Your task to perform on an android device: Add "rayovac triple a" to the cart on target, then select checkout. Image 0: 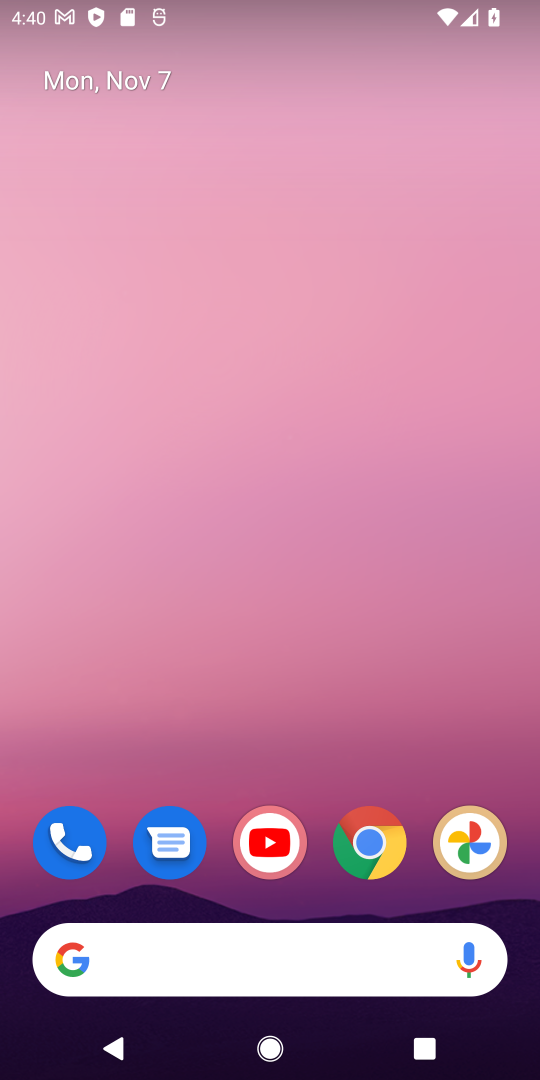
Step 0: click (370, 851)
Your task to perform on an android device: Add "rayovac triple a" to the cart on target, then select checkout. Image 1: 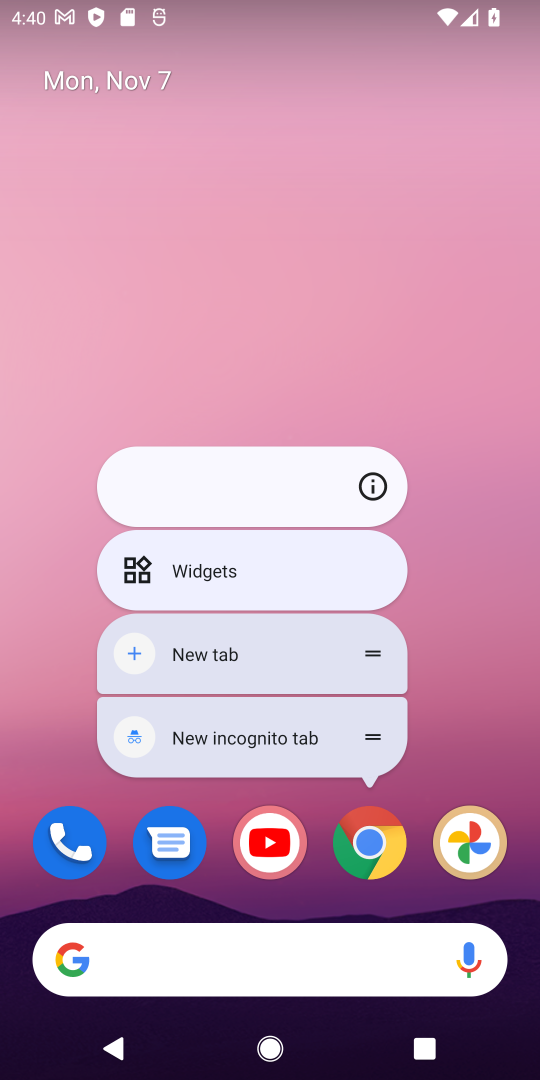
Step 1: click (370, 851)
Your task to perform on an android device: Add "rayovac triple a" to the cart on target, then select checkout. Image 2: 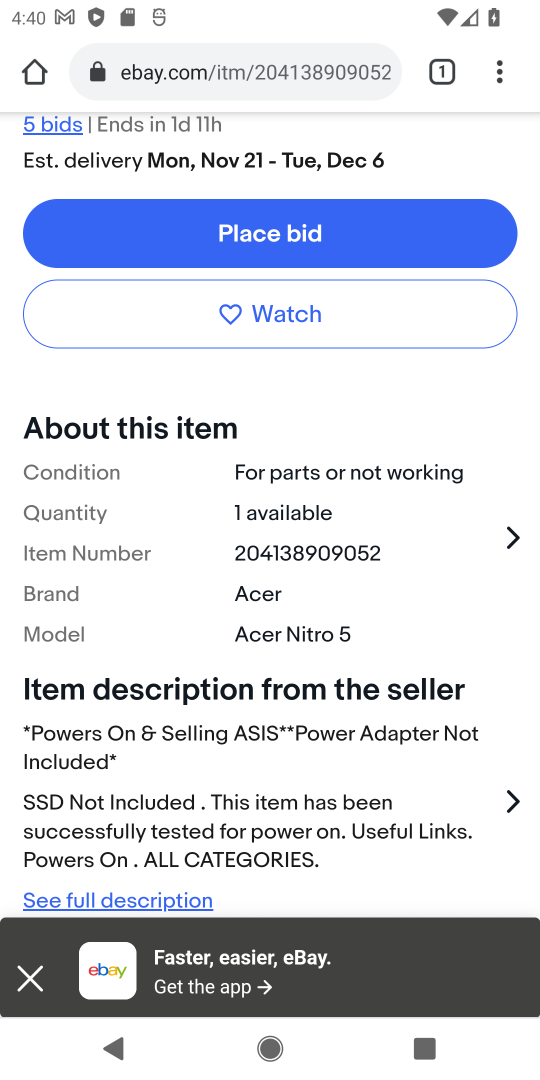
Step 2: click (292, 73)
Your task to perform on an android device: Add "rayovac triple a" to the cart on target, then select checkout. Image 3: 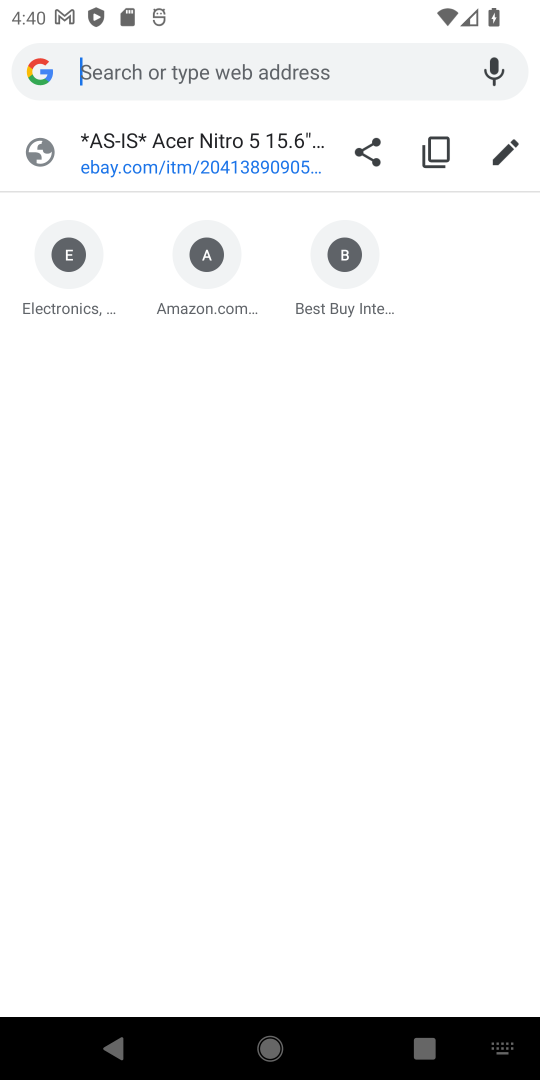
Step 3: type " target"
Your task to perform on an android device: Add "rayovac triple a" to the cart on target, then select checkout. Image 4: 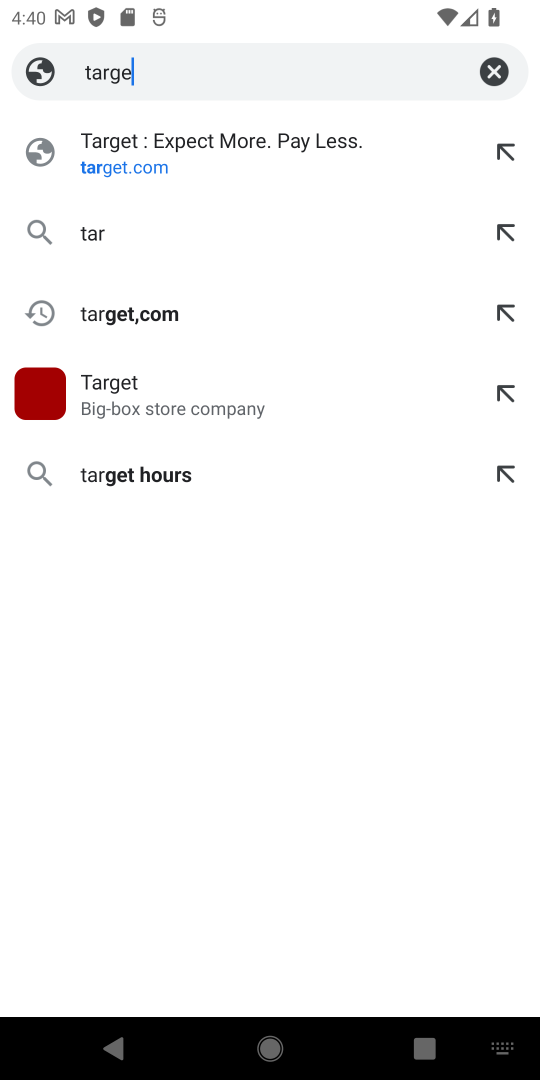
Step 4: press enter
Your task to perform on an android device: Add "rayovac triple a" to the cart on target, then select checkout. Image 5: 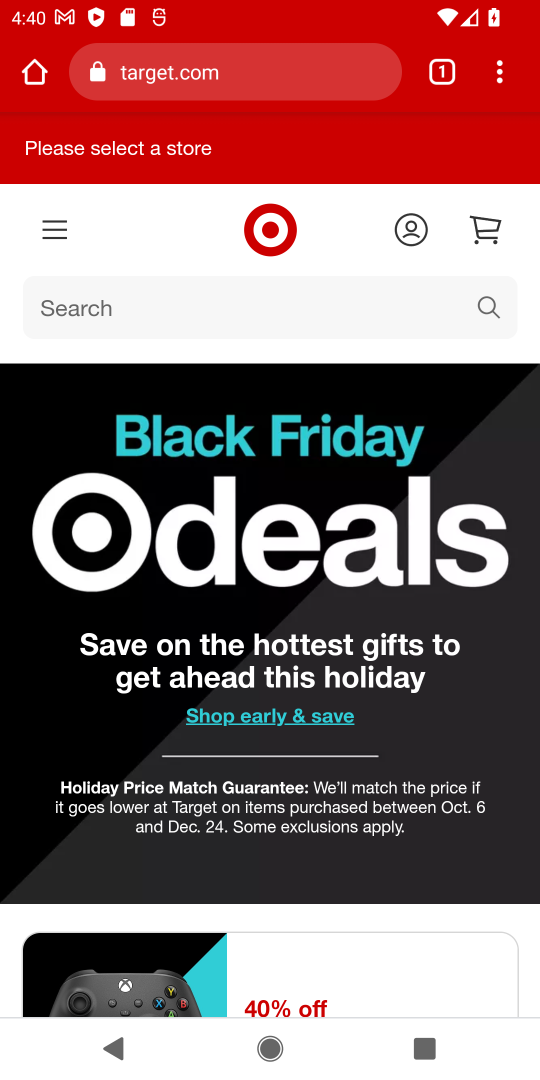
Step 5: click (278, 299)
Your task to perform on an android device: Add "rayovac triple a" to the cart on target, then select checkout. Image 6: 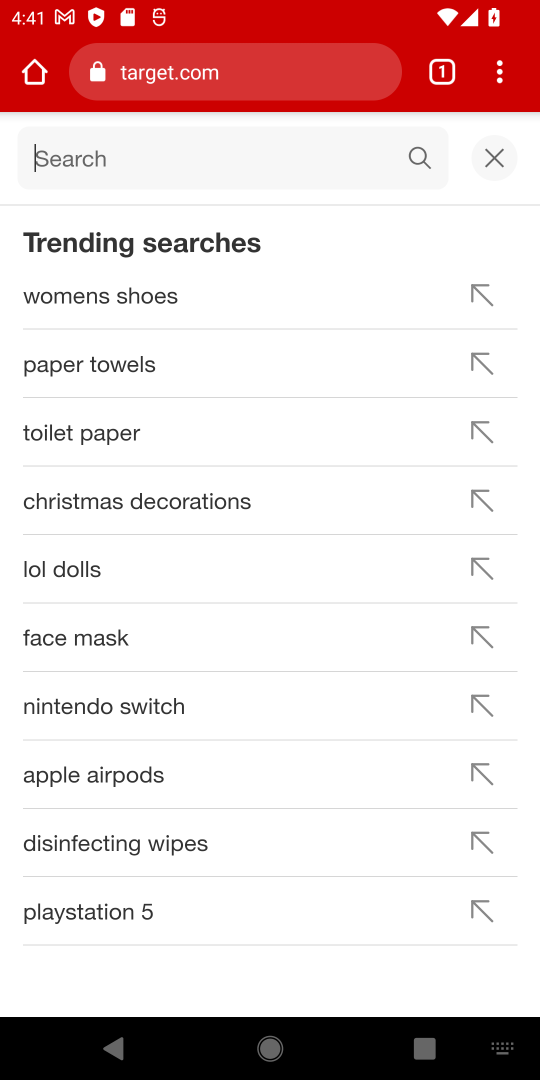
Step 6: type "rayovac triple a"
Your task to perform on an android device: Add "rayovac triple a" to the cart on target, then select checkout. Image 7: 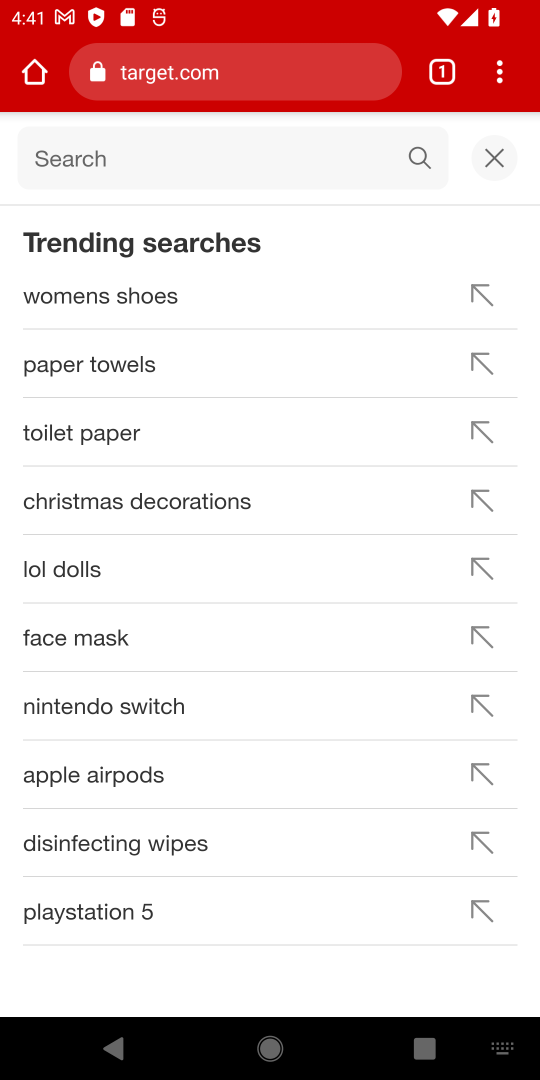
Step 7: press enter
Your task to perform on an android device: Add "rayovac triple a" to the cart on target, then select checkout. Image 8: 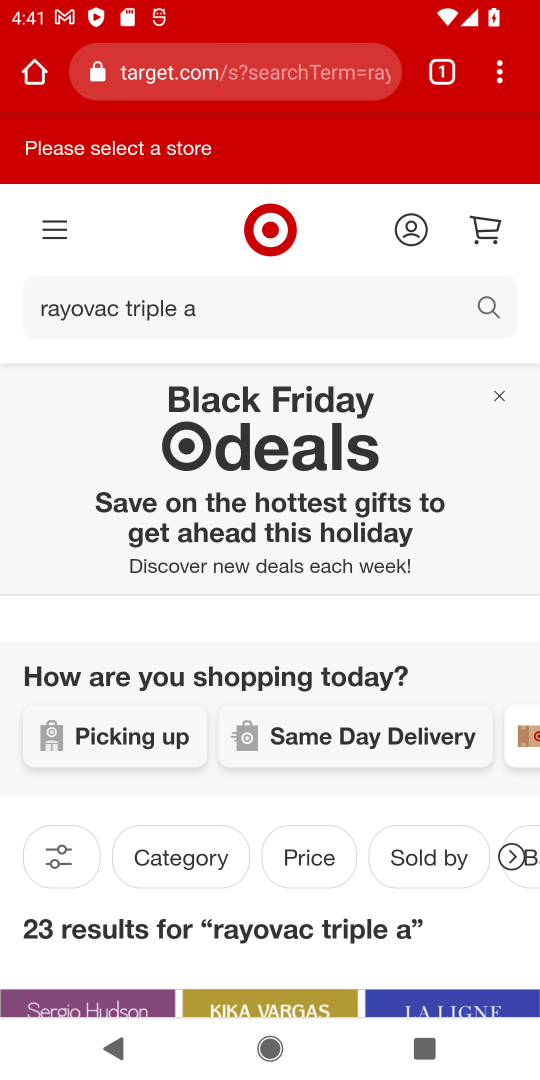
Step 8: drag from (284, 779) to (419, 237)
Your task to perform on an android device: Add "rayovac triple a" to the cart on target, then select checkout. Image 9: 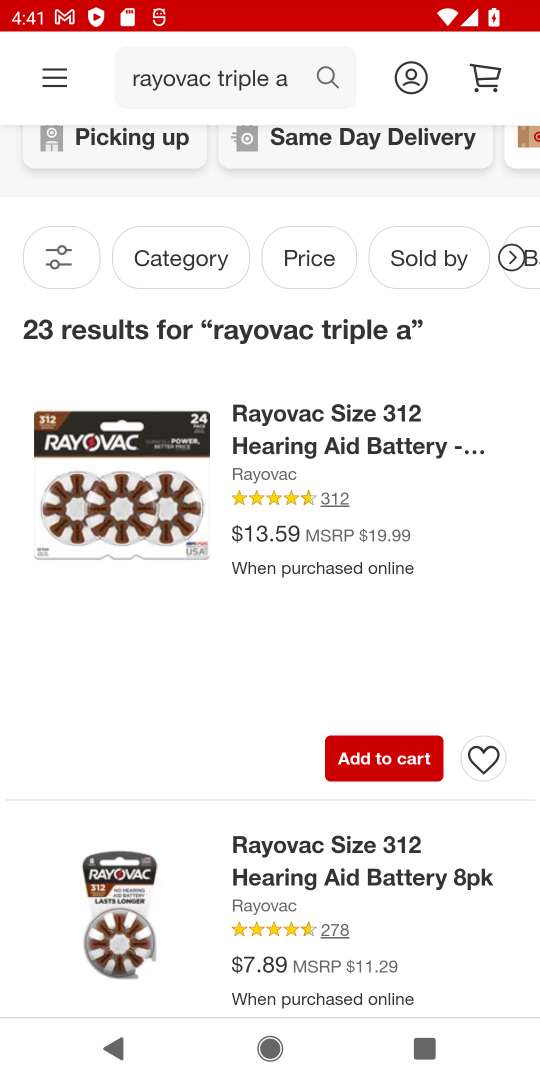
Step 9: click (366, 752)
Your task to perform on an android device: Add "rayovac triple a" to the cart on target, then select checkout. Image 10: 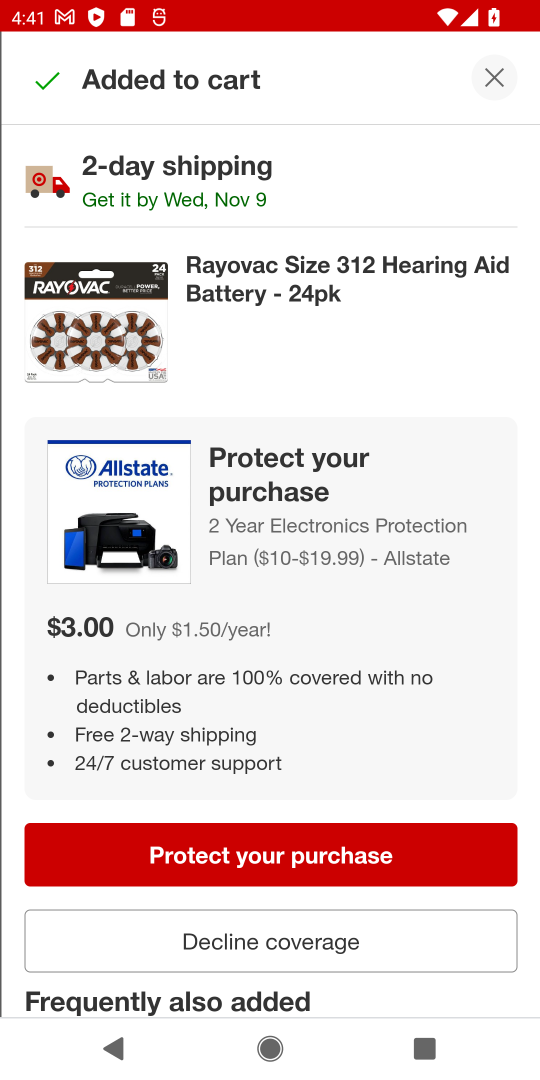
Step 10: click (329, 946)
Your task to perform on an android device: Add "rayovac triple a" to the cart on target, then select checkout. Image 11: 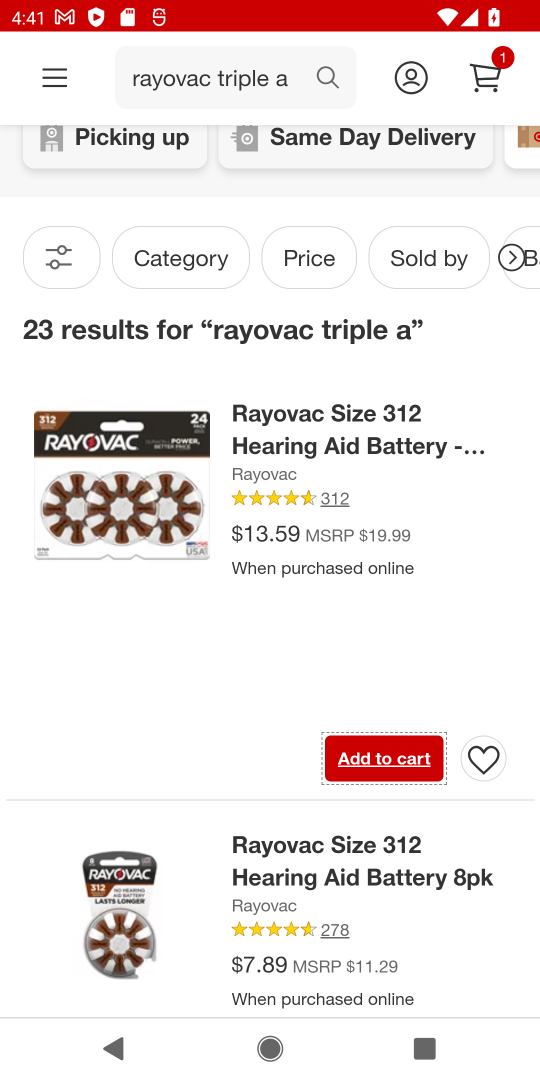
Step 11: click (485, 65)
Your task to perform on an android device: Add "rayovac triple a" to the cart on target, then select checkout. Image 12: 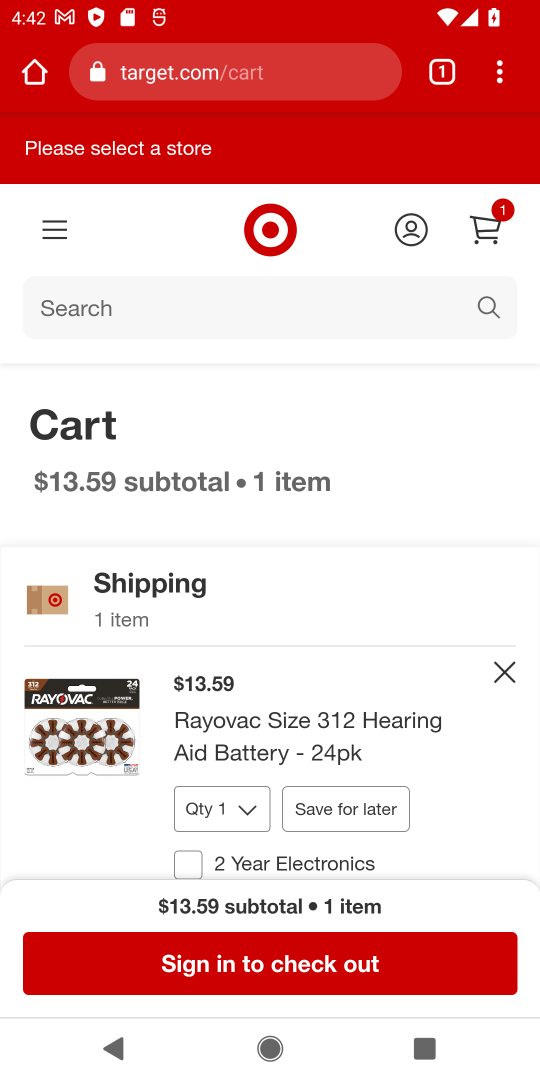
Step 12: click (311, 965)
Your task to perform on an android device: Add "rayovac triple a" to the cart on target, then select checkout. Image 13: 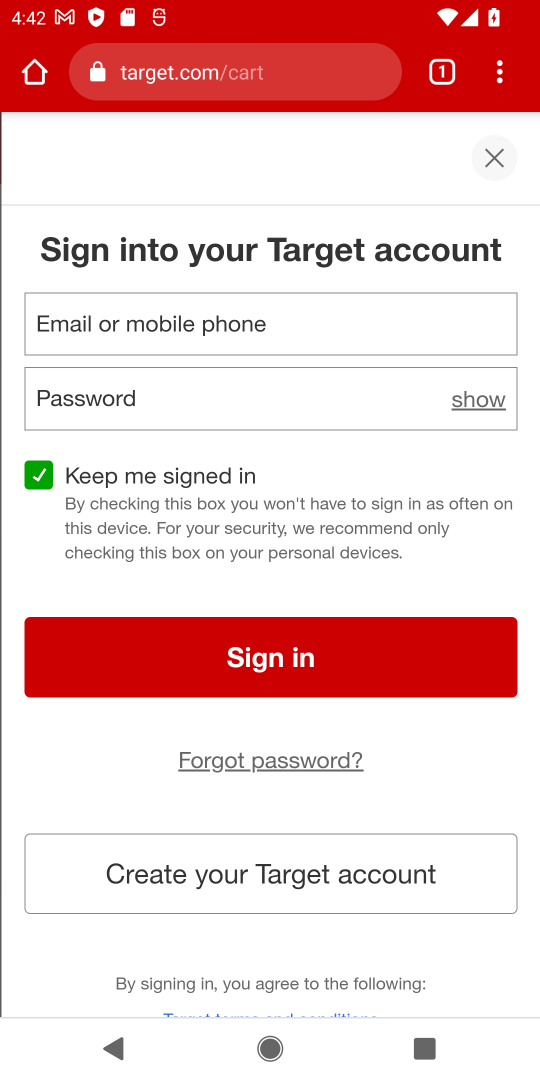
Step 13: task complete